Your task to perform on an android device: Open Youtube and go to "Your channel" Image 0: 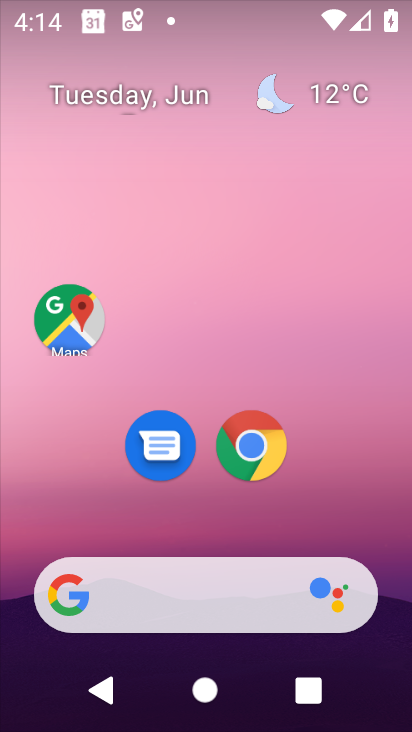
Step 0: drag from (345, 487) to (264, 2)
Your task to perform on an android device: Open Youtube and go to "Your channel" Image 1: 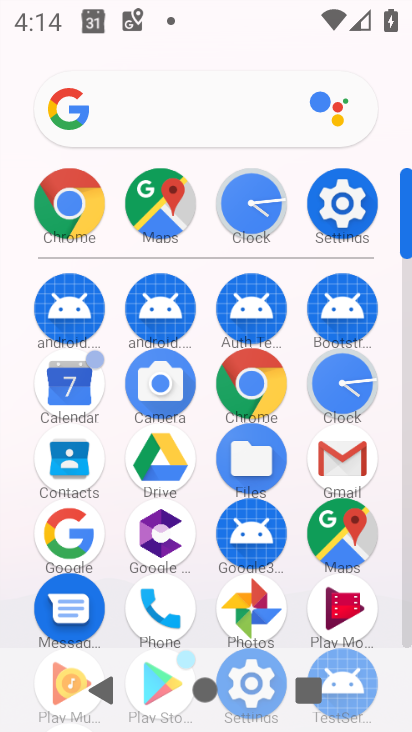
Step 1: drag from (391, 580) to (385, 9)
Your task to perform on an android device: Open Youtube and go to "Your channel" Image 2: 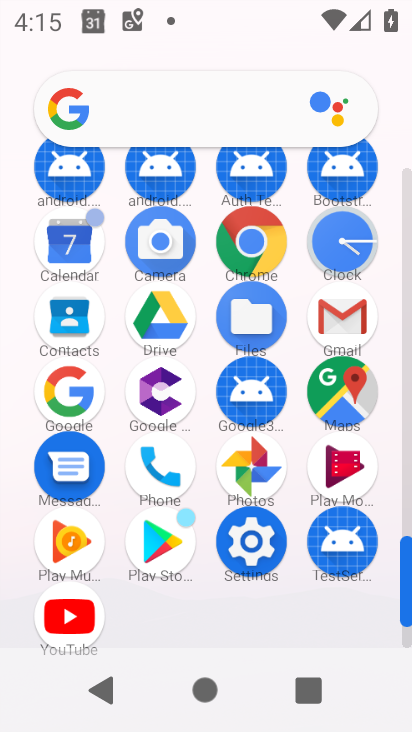
Step 2: click (81, 632)
Your task to perform on an android device: Open Youtube and go to "Your channel" Image 3: 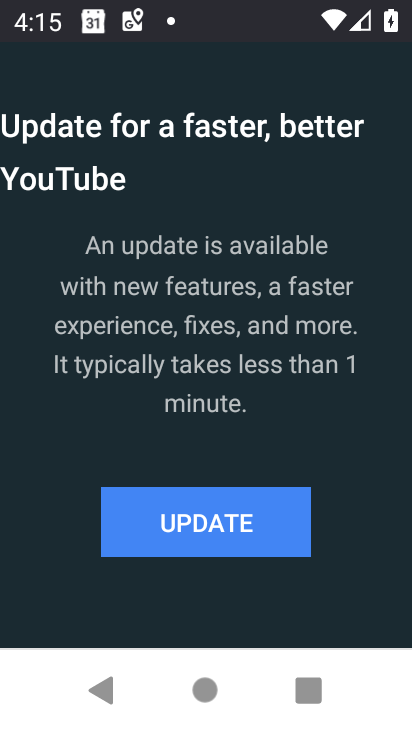
Step 3: click (177, 518)
Your task to perform on an android device: Open Youtube and go to "Your channel" Image 4: 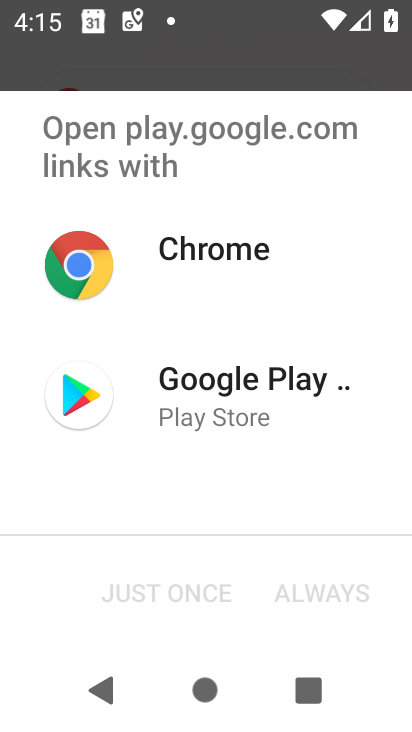
Step 4: click (195, 417)
Your task to perform on an android device: Open Youtube and go to "Your channel" Image 5: 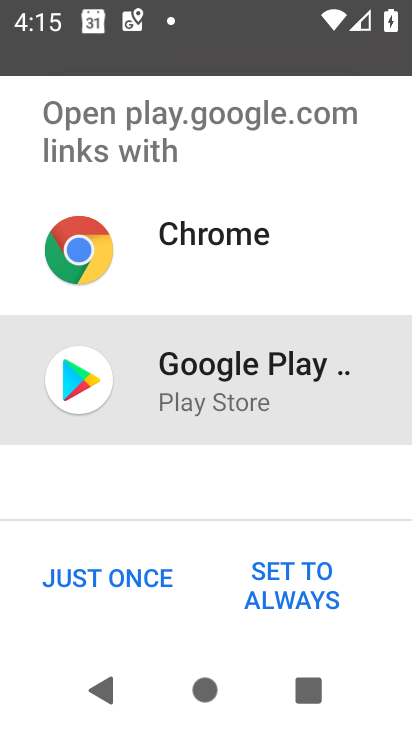
Step 5: click (114, 584)
Your task to perform on an android device: Open Youtube and go to "Your channel" Image 6: 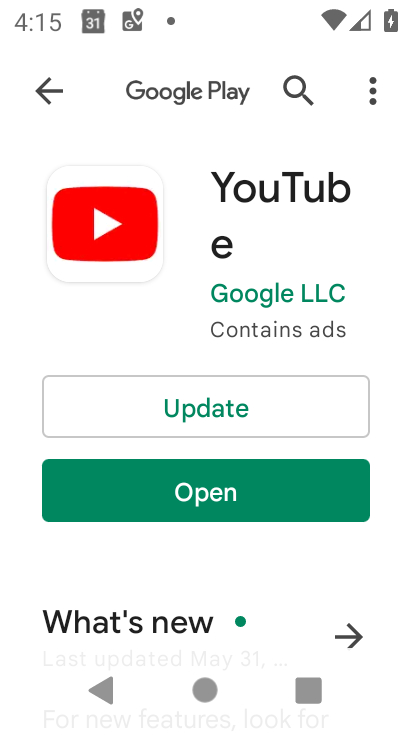
Step 6: click (227, 409)
Your task to perform on an android device: Open Youtube and go to "Your channel" Image 7: 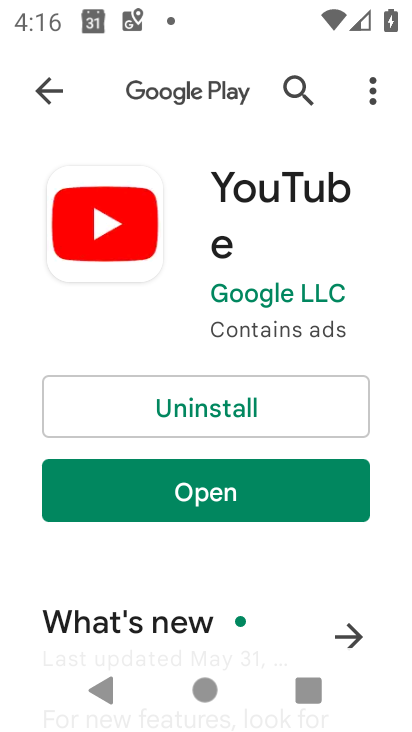
Step 7: click (211, 499)
Your task to perform on an android device: Open Youtube and go to "Your channel" Image 8: 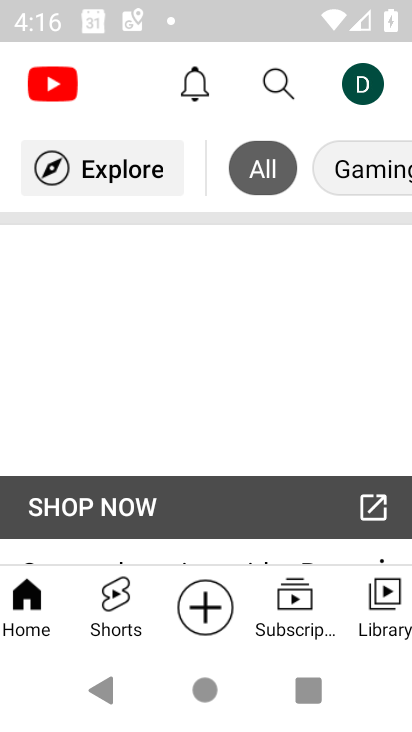
Step 8: click (369, 94)
Your task to perform on an android device: Open Youtube and go to "Your channel" Image 9: 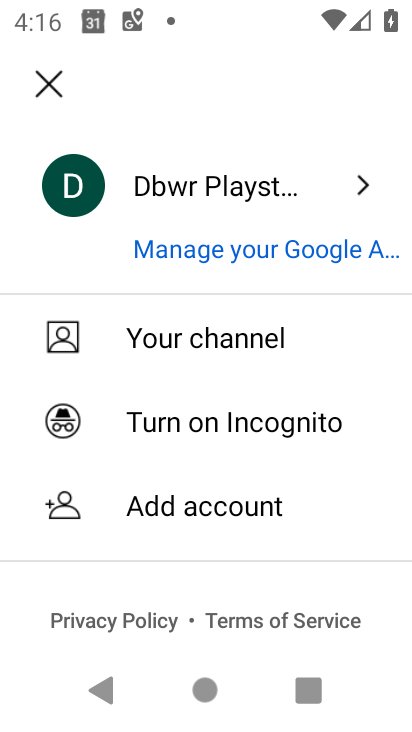
Step 9: click (239, 325)
Your task to perform on an android device: Open Youtube and go to "Your channel" Image 10: 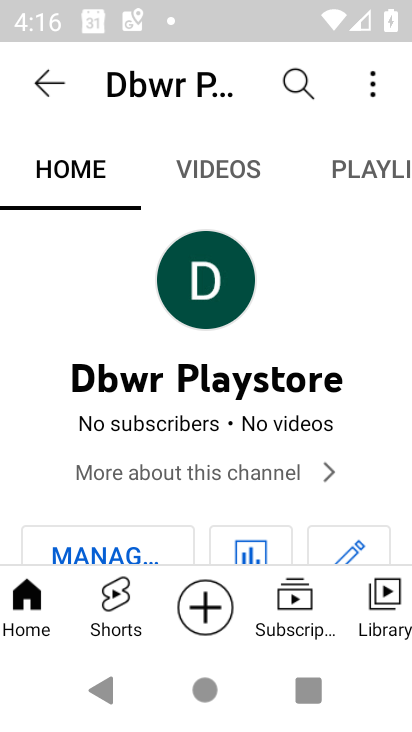
Step 10: task complete